Your task to perform on an android device: allow notifications from all sites in the chrome app Image 0: 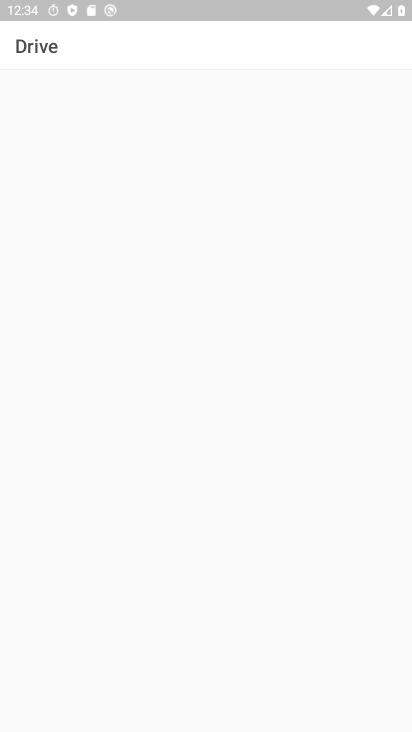
Step 0: press home button
Your task to perform on an android device: allow notifications from all sites in the chrome app Image 1: 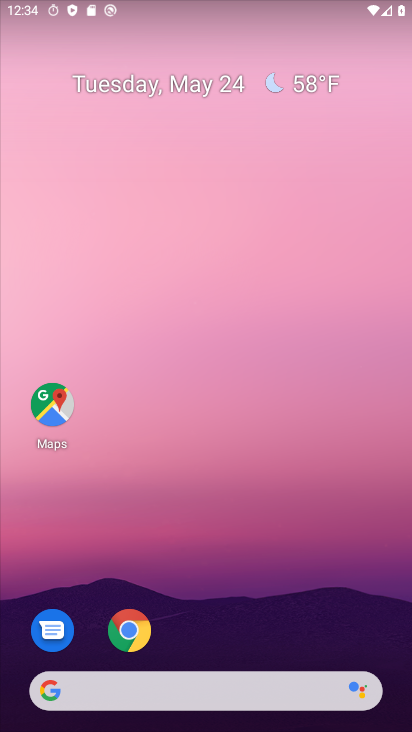
Step 1: click (128, 630)
Your task to perform on an android device: allow notifications from all sites in the chrome app Image 2: 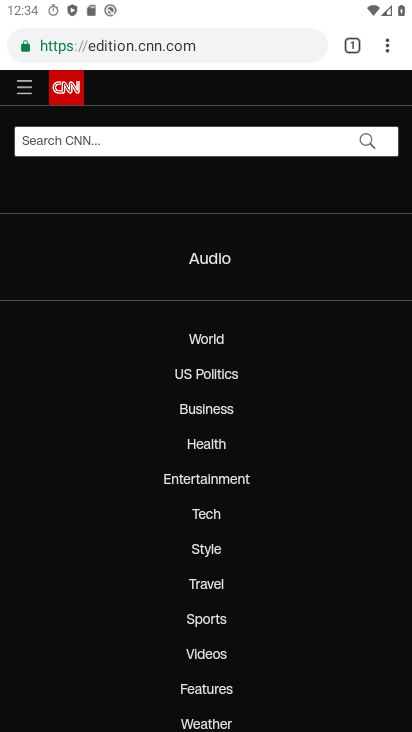
Step 2: click (387, 47)
Your task to perform on an android device: allow notifications from all sites in the chrome app Image 3: 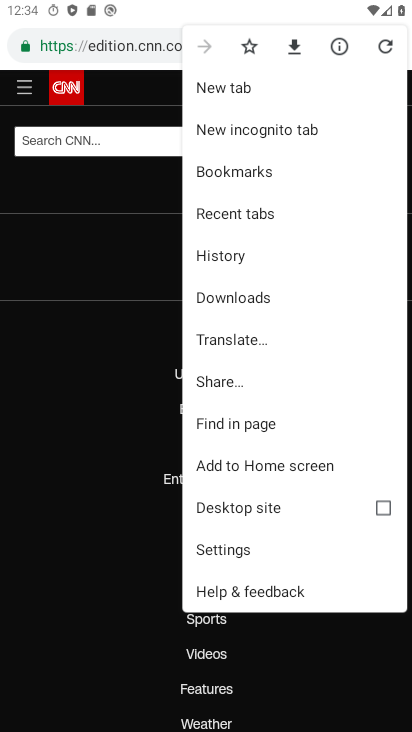
Step 3: click (234, 548)
Your task to perform on an android device: allow notifications from all sites in the chrome app Image 4: 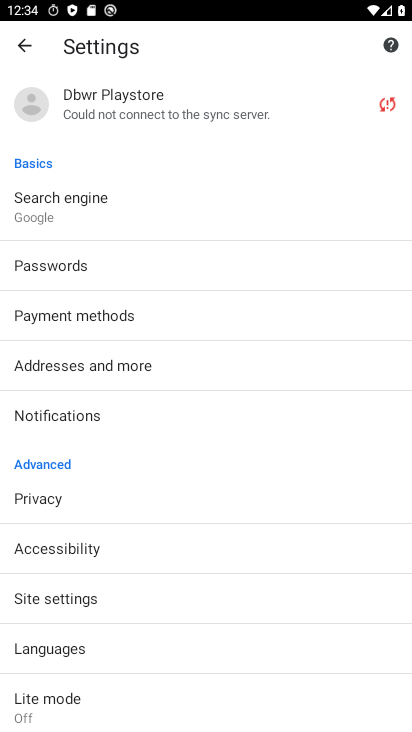
Step 4: click (89, 591)
Your task to perform on an android device: allow notifications from all sites in the chrome app Image 5: 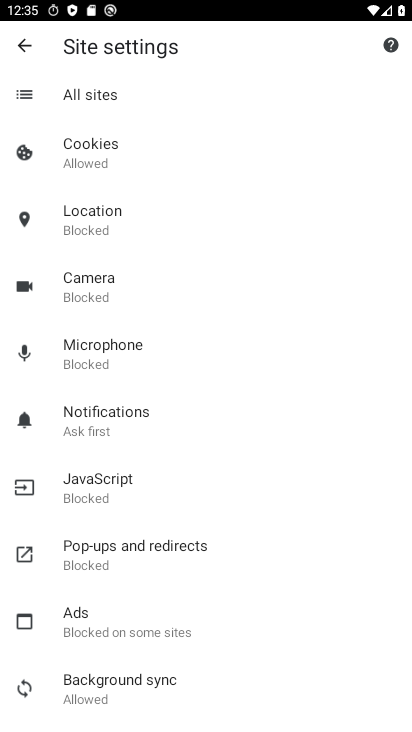
Step 5: click (99, 411)
Your task to perform on an android device: allow notifications from all sites in the chrome app Image 6: 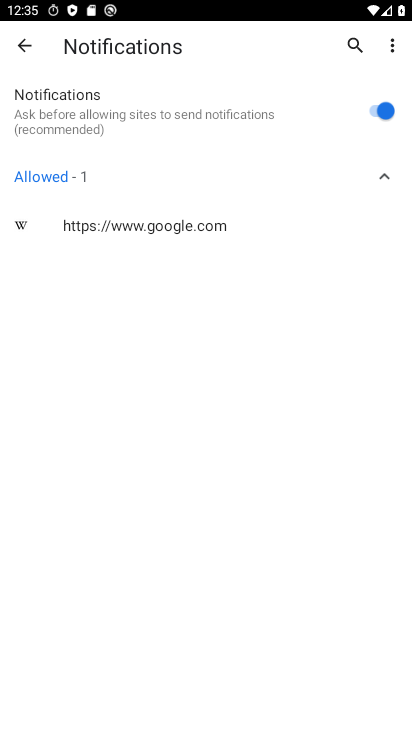
Step 6: task complete